Your task to perform on an android device: turn off notifications settings in the gmail app Image 0: 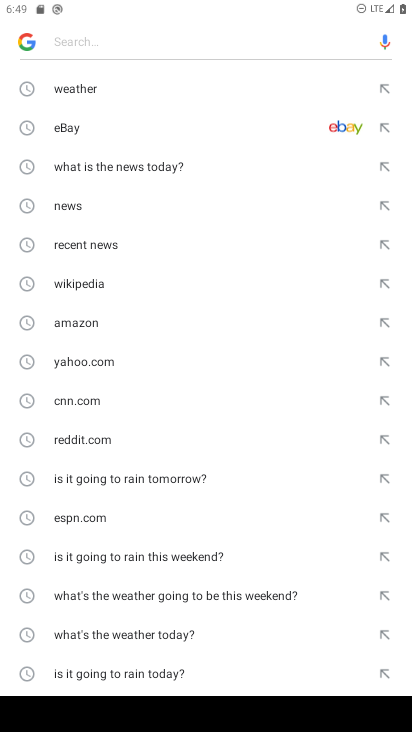
Step 0: press home button
Your task to perform on an android device: turn off notifications settings in the gmail app Image 1: 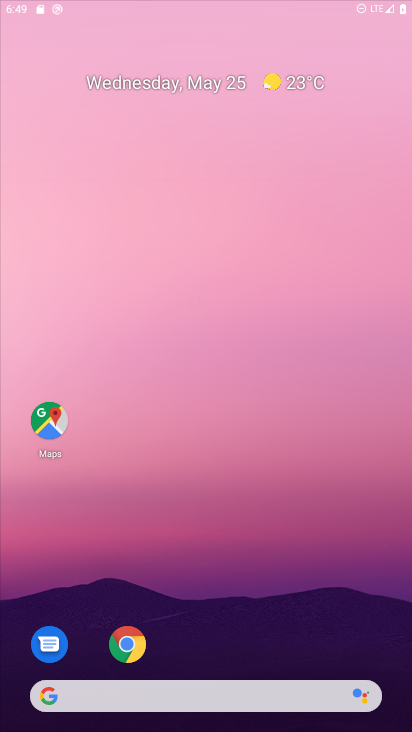
Step 1: drag from (401, 613) to (311, 42)
Your task to perform on an android device: turn off notifications settings in the gmail app Image 2: 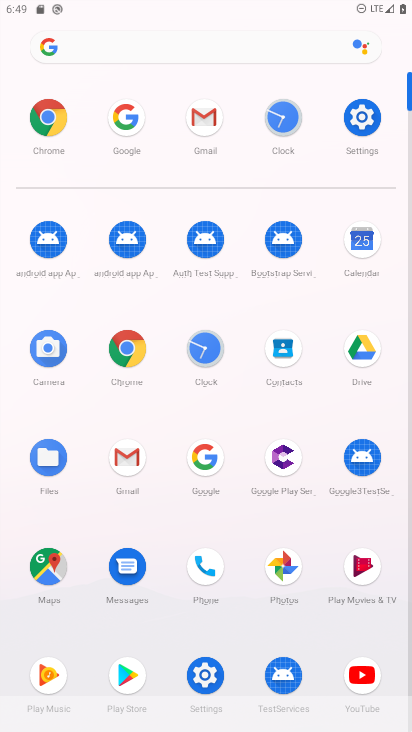
Step 2: click (130, 443)
Your task to perform on an android device: turn off notifications settings in the gmail app Image 3: 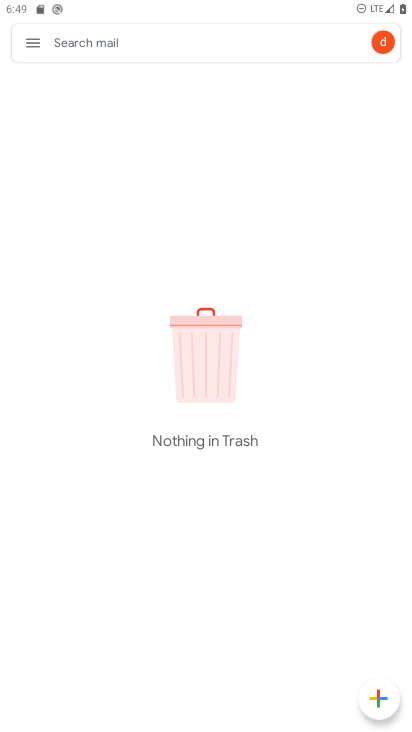
Step 3: click (31, 44)
Your task to perform on an android device: turn off notifications settings in the gmail app Image 4: 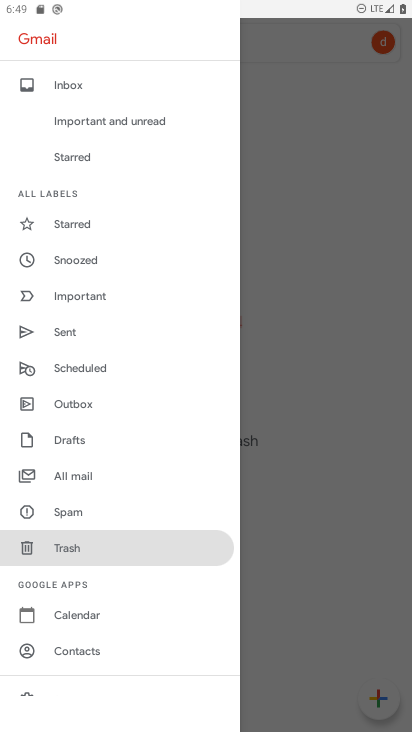
Step 4: drag from (87, 633) to (131, 66)
Your task to perform on an android device: turn off notifications settings in the gmail app Image 5: 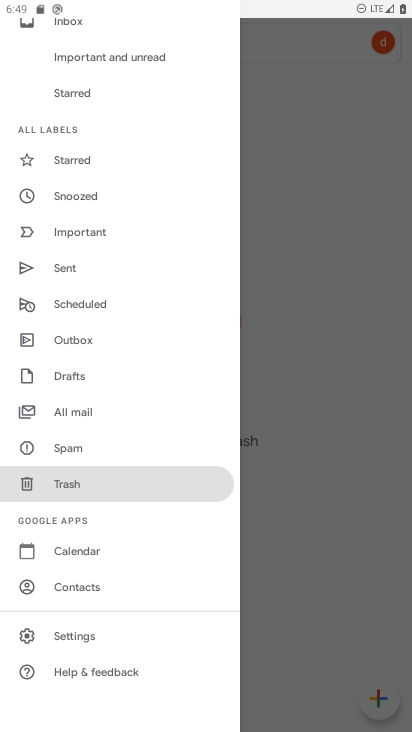
Step 5: click (68, 631)
Your task to perform on an android device: turn off notifications settings in the gmail app Image 6: 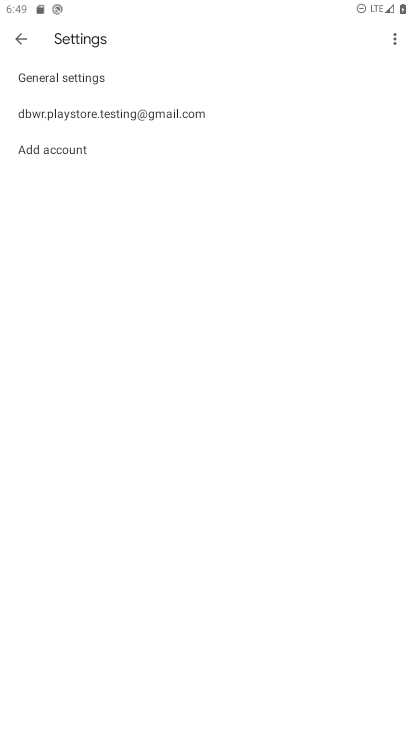
Step 6: click (147, 124)
Your task to perform on an android device: turn off notifications settings in the gmail app Image 7: 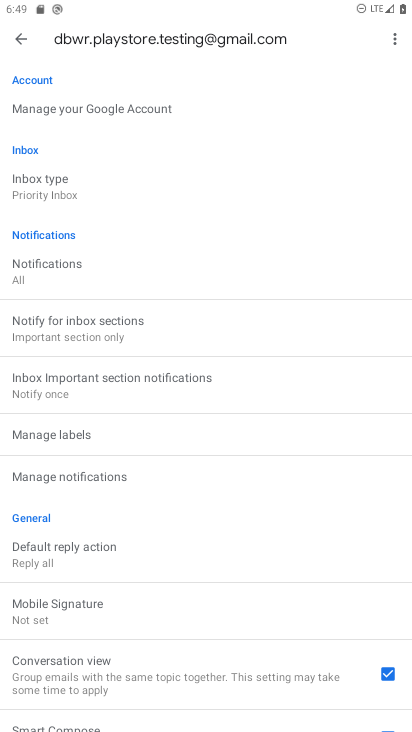
Step 7: click (51, 268)
Your task to perform on an android device: turn off notifications settings in the gmail app Image 8: 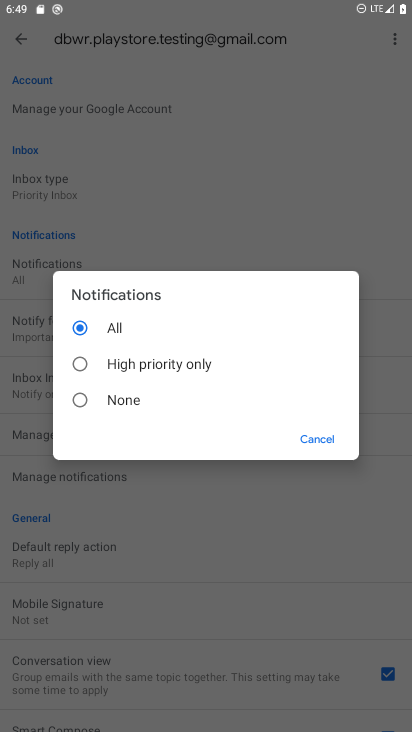
Step 8: click (77, 401)
Your task to perform on an android device: turn off notifications settings in the gmail app Image 9: 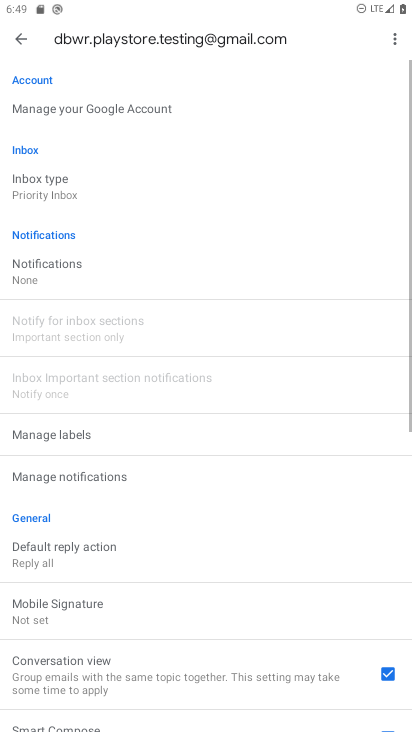
Step 9: task complete